Your task to perform on an android device: Search for Italian restaurants on Maps Image 0: 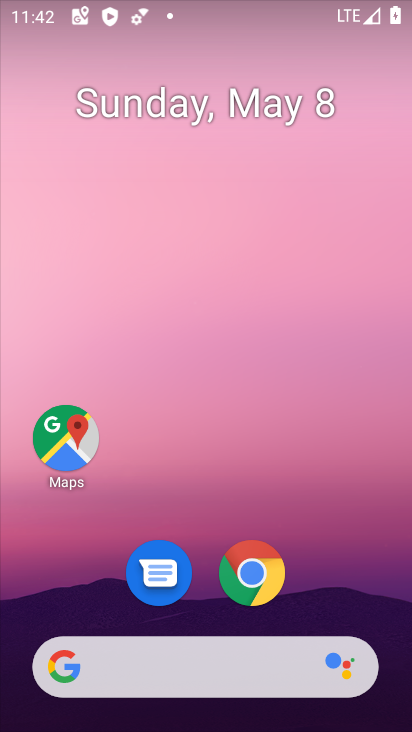
Step 0: drag from (351, 537) to (296, 33)
Your task to perform on an android device: Search for Italian restaurants on Maps Image 1: 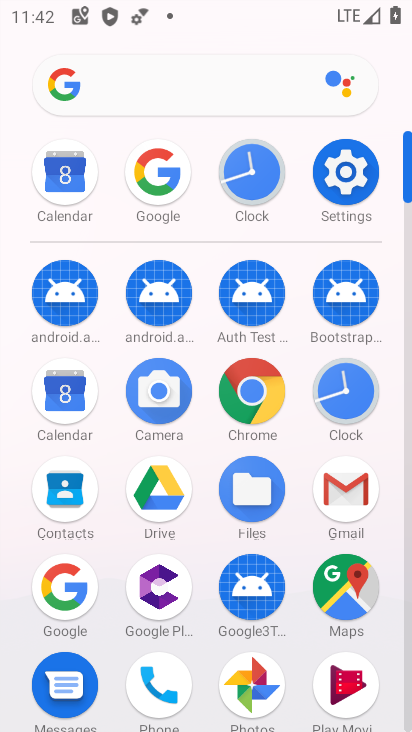
Step 1: drag from (9, 545) to (18, 308)
Your task to perform on an android device: Search for Italian restaurants on Maps Image 2: 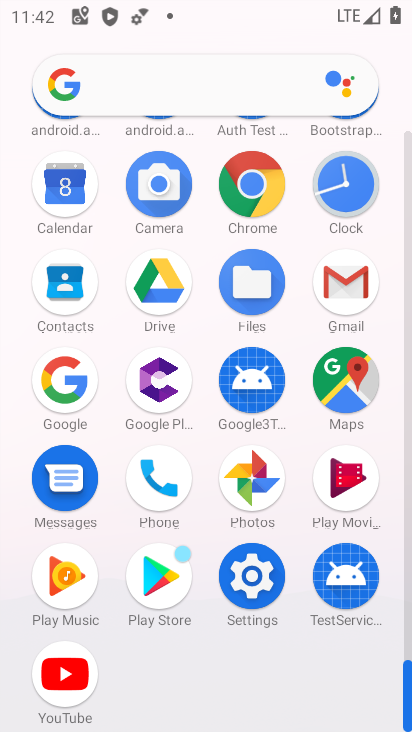
Step 2: click (344, 382)
Your task to perform on an android device: Search for Italian restaurants on Maps Image 3: 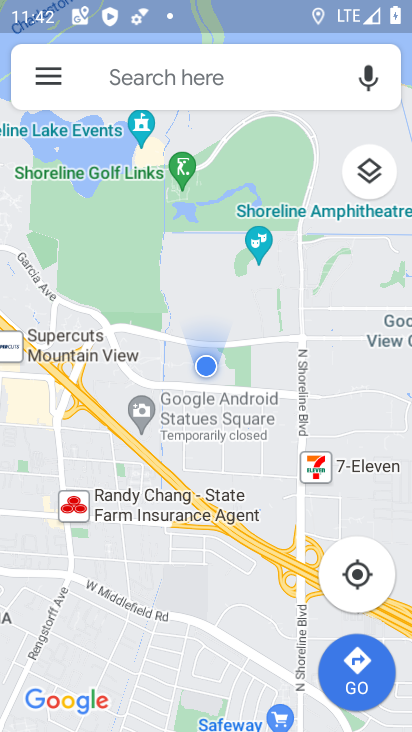
Step 3: click (265, 68)
Your task to perform on an android device: Search for Italian restaurants on Maps Image 4: 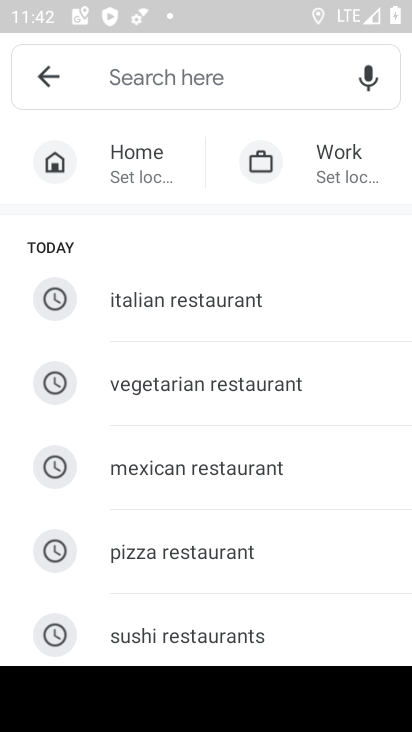
Step 4: click (223, 302)
Your task to perform on an android device: Search for Italian restaurants on Maps Image 5: 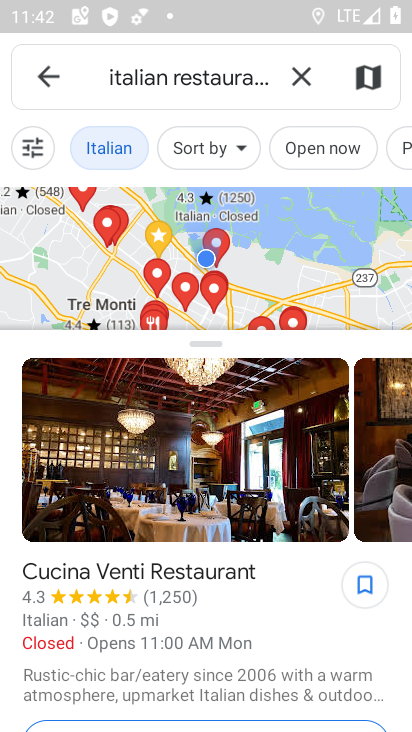
Step 5: task complete